Your task to perform on an android device: Go to calendar. Show me events next week Image 0: 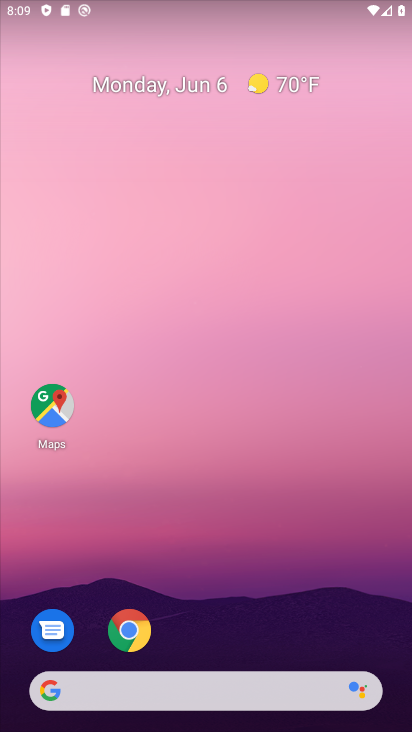
Step 0: drag from (219, 631) to (229, 184)
Your task to perform on an android device: Go to calendar. Show me events next week Image 1: 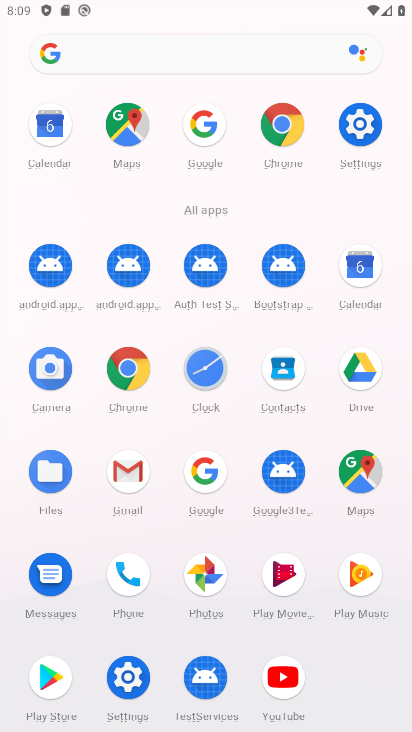
Step 1: click (351, 287)
Your task to perform on an android device: Go to calendar. Show me events next week Image 2: 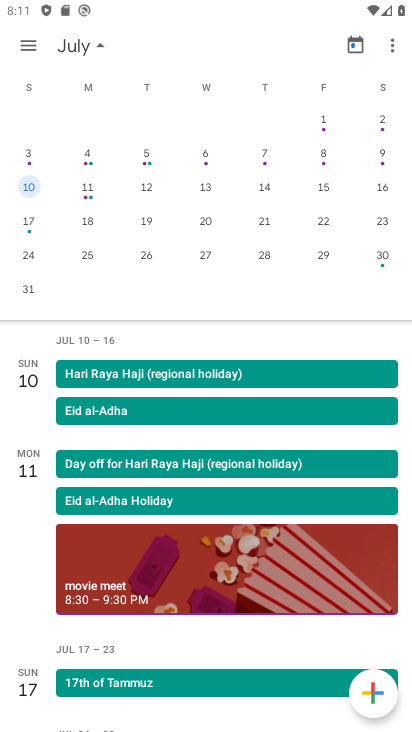
Step 2: drag from (58, 203) to (343, 205)
Your task to perform on an android device: Go to calendar. Show me events next week Image 3: 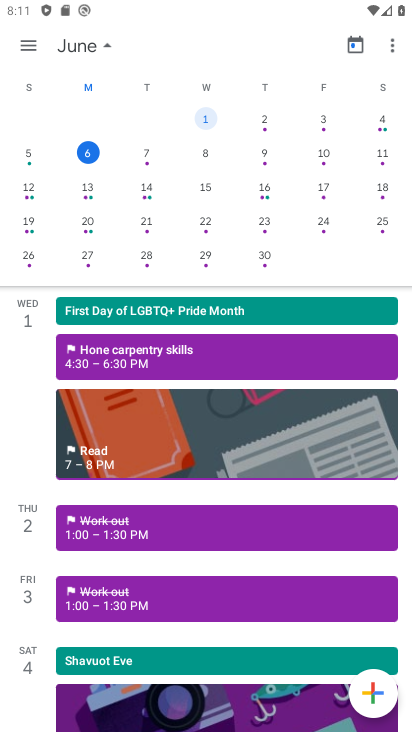
Step 3: drag from (333, 163) to (206, 175)
Your task to perform on an android device: Go to calendar. Show me events next week Image 4: 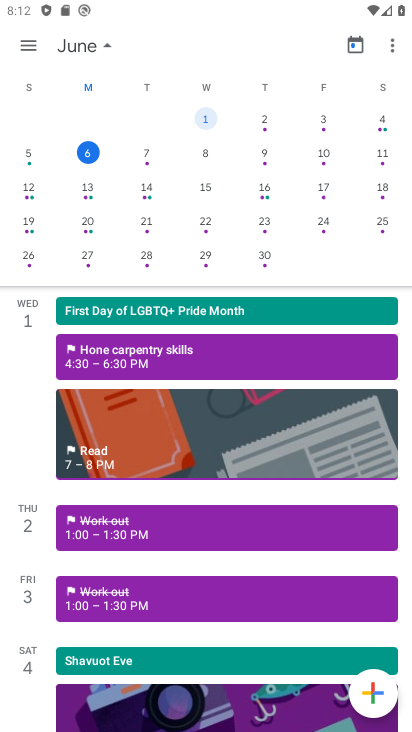
Step 4: click (134, 156)
Your task to perform on an android device: Go to calendar. Show me events next week Image 5: 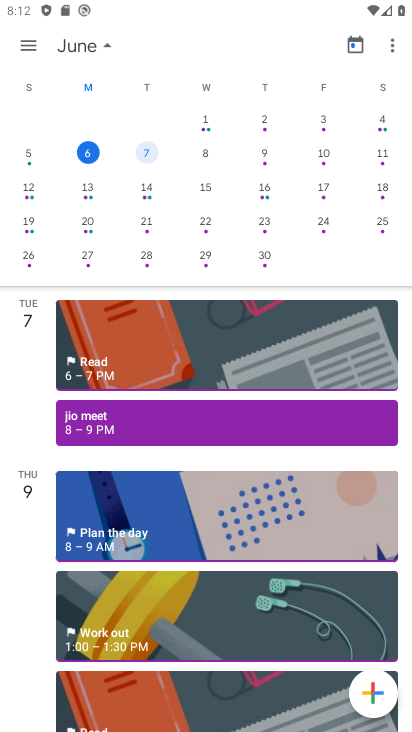
Step 5: click (78, 145)
Your task to perform on an android device: Go to calendar. Show me events next week Image 6: 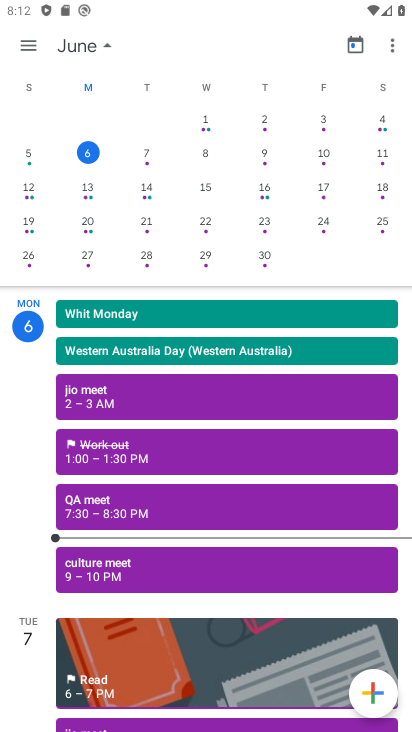
Step 6: click (37, 181)
Your task to perform on an android device: Go to calendar. Show me events next week Image 7: 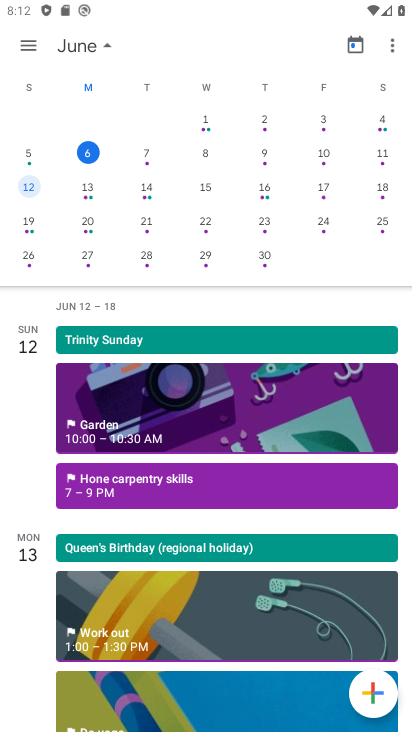
Step 7: click (97, 185)
Your task to perform on an android device: Go to calendar. Show me events next week Image 8: 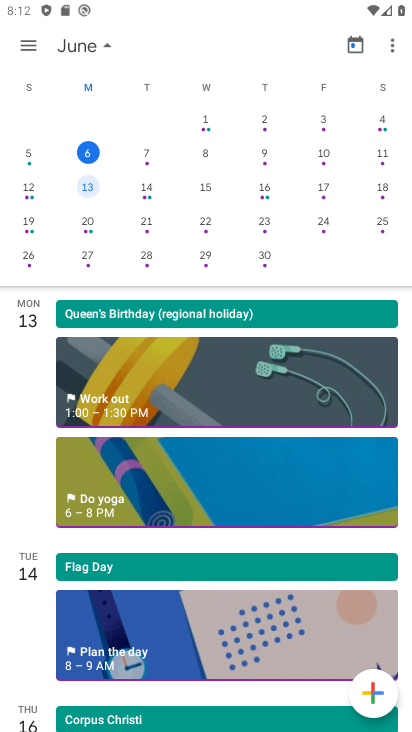
Step 8: task complete